Your task to perform on an android device: toggle notifications settings in the gmail app Image 0: 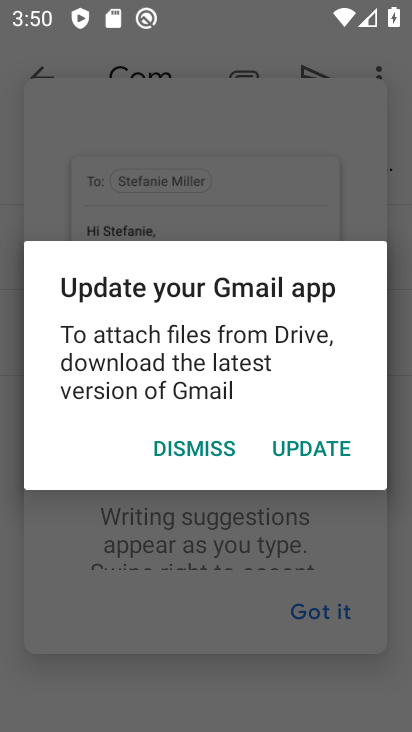
Step 0: click (298, 440)
Your task to perform on an android device: toggle notifications settings in the gmail app Image 1: 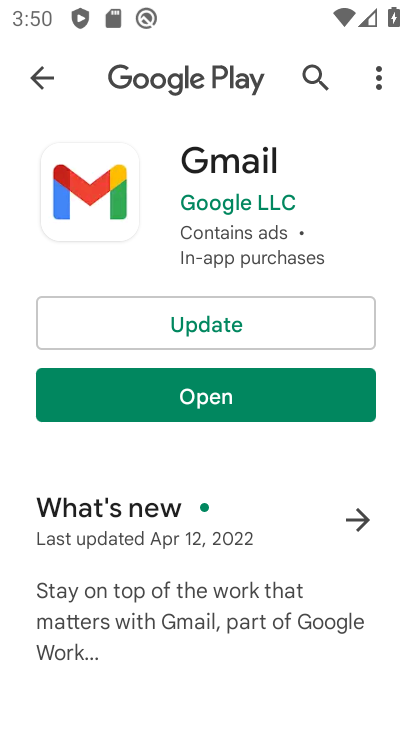
Step 1: click (248, 321)
Your task to perform on an android device: toggle notifications settings in the gmail app Image 2: 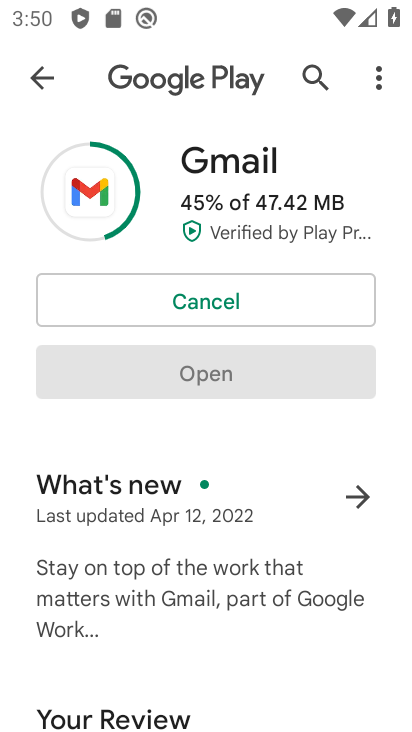
Step 2: click (232, 292)
Your task to perform on an android device: toggle notifications settings in the gmail app Image 3: 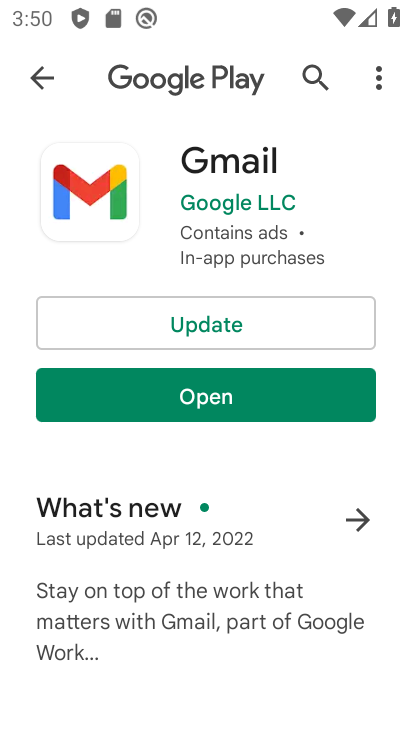
Step 3: click (232, 317)
Your task to perform on an android device: toggle notifications settings in the gmail app Image 4: 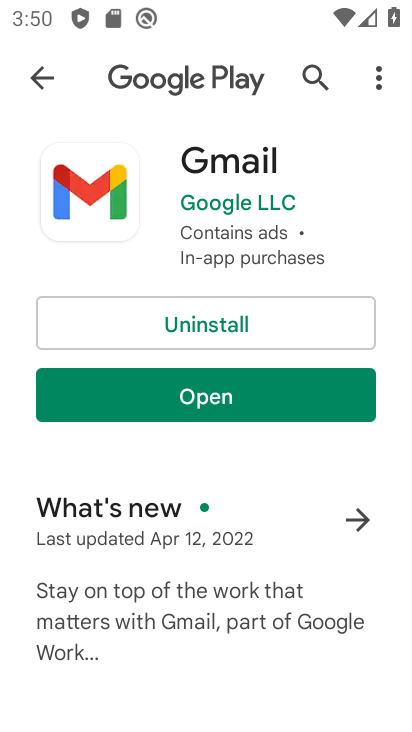
Step 4: click (201, 401)
Your task to perform on an android device: toggle notifications settings in the gmail app Image 5: 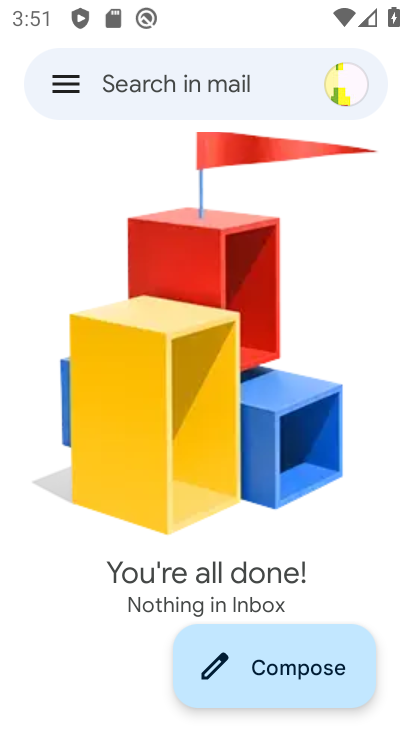
Step 5: click (61, 80)
Your task to perform on an android device: toggle notifications settings in the gmail app Image 6: 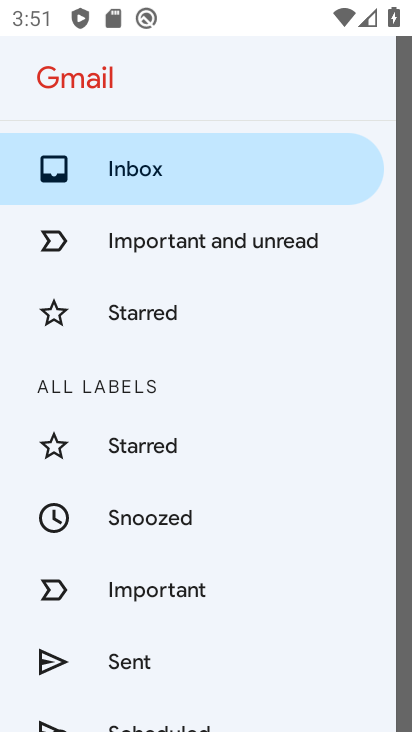
Step 6: drag from (281, 615) to (299, 253)
Your task to perform on an android device: toggle notifications settings in the gmail app Image 7: 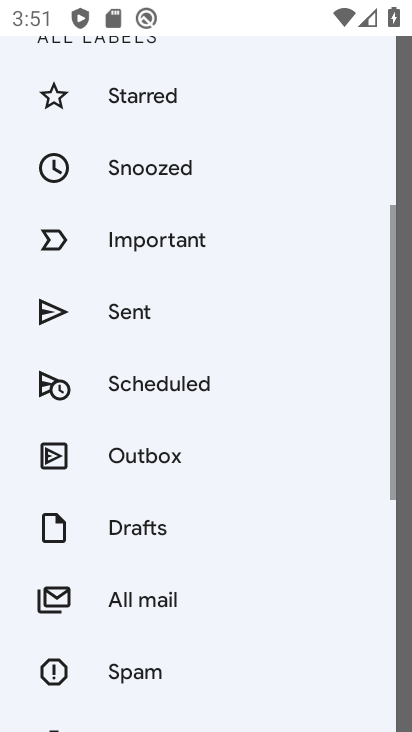
Step 7: drag from (293, 580) to (289, 275)
Your task to perform on an android device: toggle notifications settings in the gmail app Image 8: 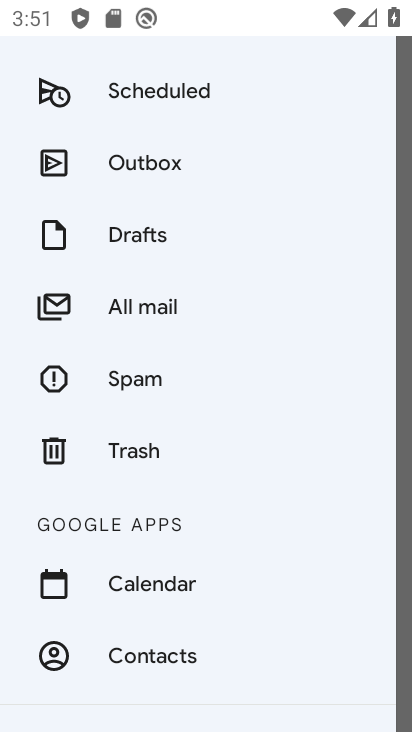
Step 8: drag from (279, 628) to (248, 240)
Your task to perform on an android device: toggle notifications settings in the gmail app Image 9: 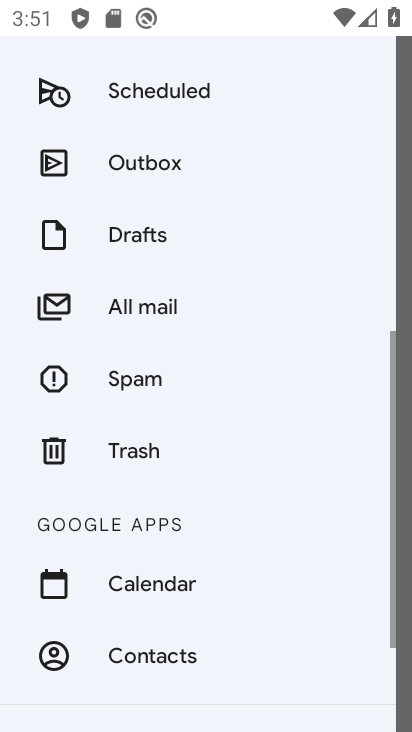
Step 9: click (289, 228)
Your task to perform on an android device: toggle notifications settings in the gmail app Image 10: 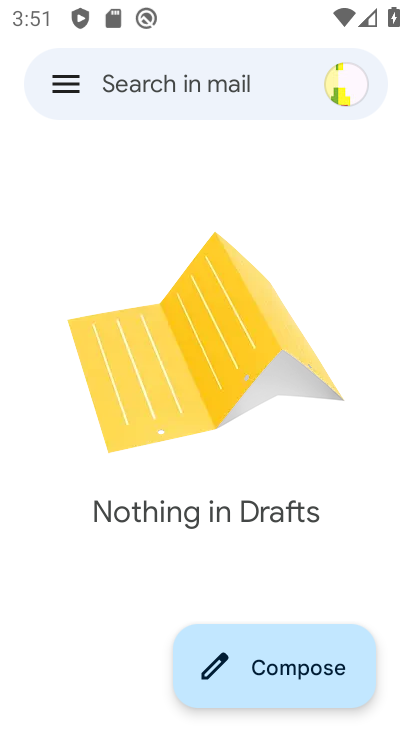
Step 10: click (65, 69)
Your task to perform on an android device: toggle notifications settings in the gmail app Image 11: 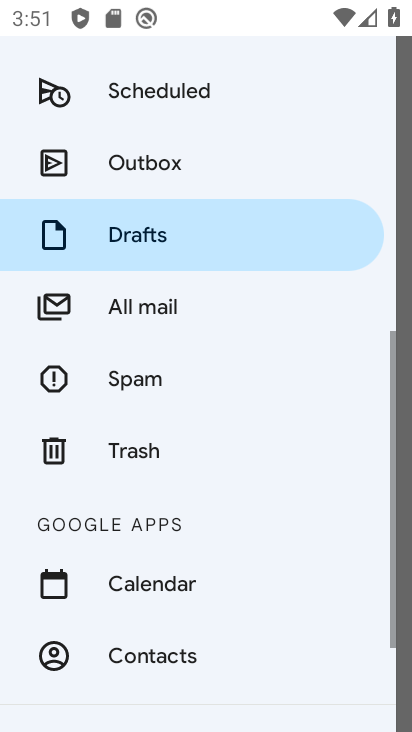
Step 11: click (301, 235)
Your task to perform on an android device: toggle notifications settings in the gmail app Image 12: 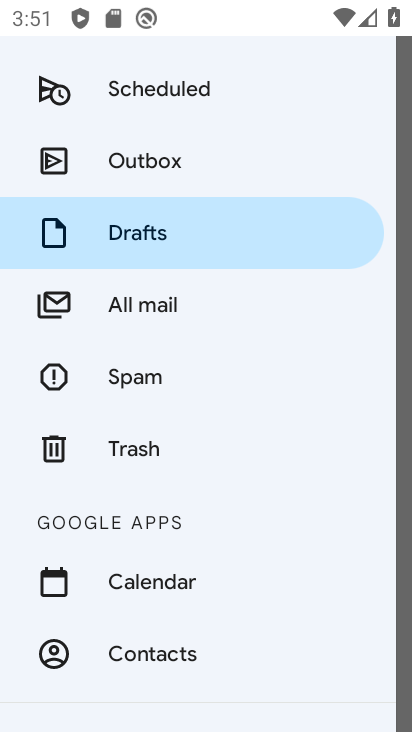
Step 12: drag from (391, 490) to (388, 306)
Your task to perform on an android device: toggle notifications settings in the gmail app Image 13: 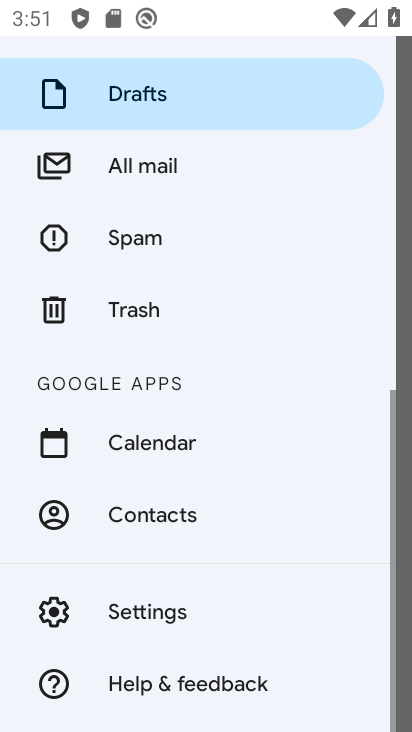
Step 13: drag from (394, 585) to (390, 355)
Your task to perform on an android device: toggle notifications settings in the gmail app Image 14: 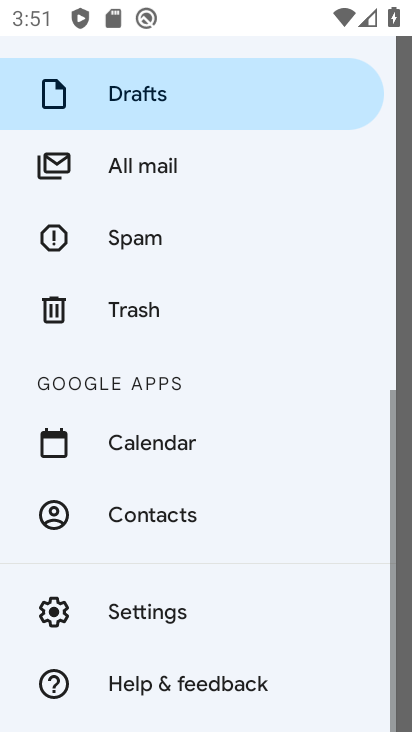
Step 14: click (106, 596)
Your task to perform on an android device: toggle notifications settings in the gmail app Image 15: 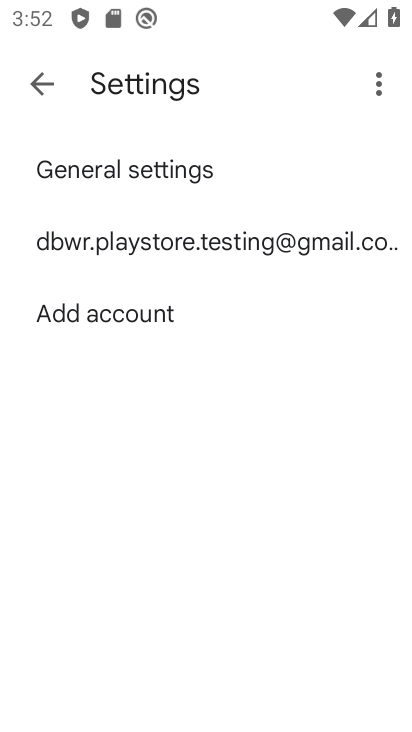
Step 15: click (114, 168)
Your task to perform on an android device: toggle notifications settings in the gmail app Image 16: 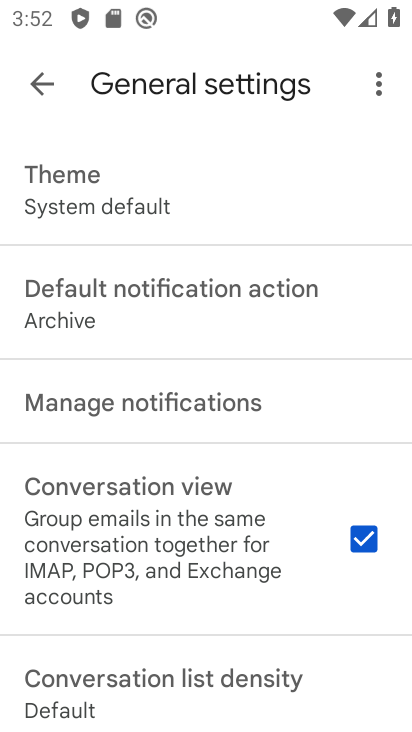
Step 16: click (80, 400)
Your task to perform on an android device: toggle notifications settings in the gmail app Image 17: 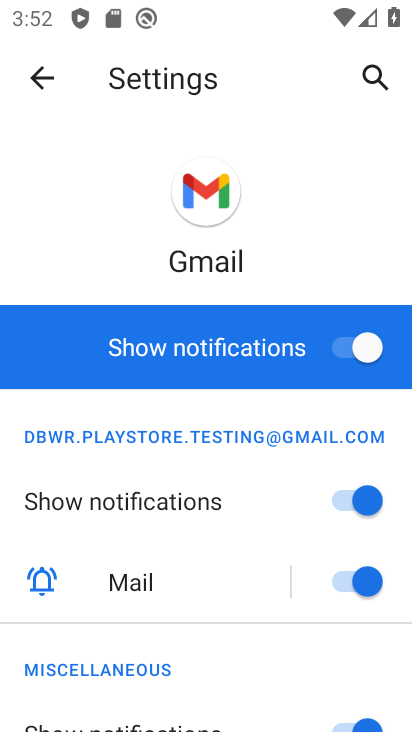
Step 17: click (335, 349)
Your task to perform on an android device: toggle notifications settings in the gmail app Image 18: 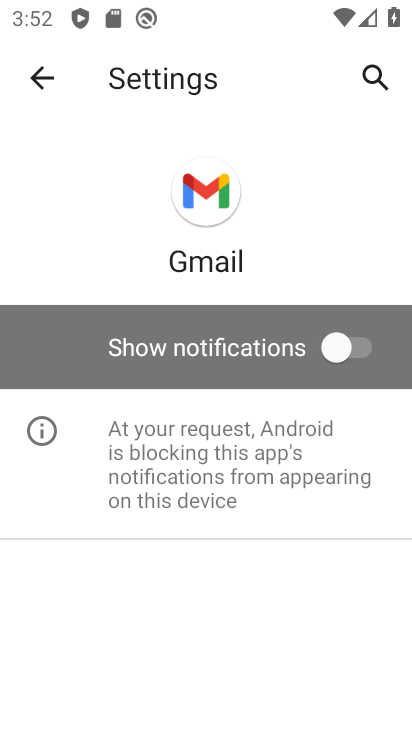
Step 18: task complete